Your task to perform on an android device: Open the calendar and show me this week's events Image 0: 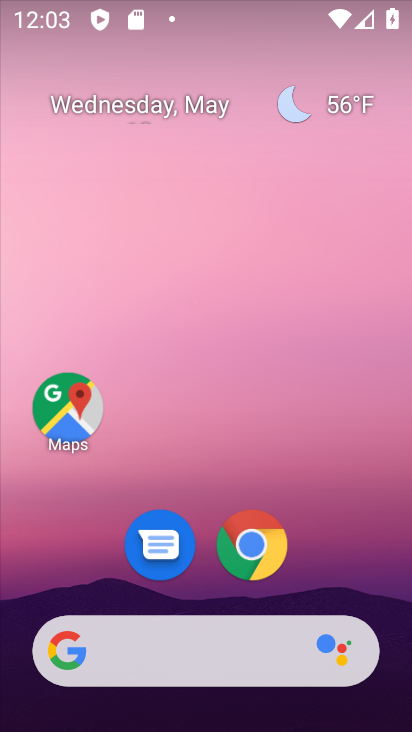
Step 0: drag from (353, 573) to (298, 124)
Your task to perform on an android device: Open the calendar and show me this week's events Image 1: 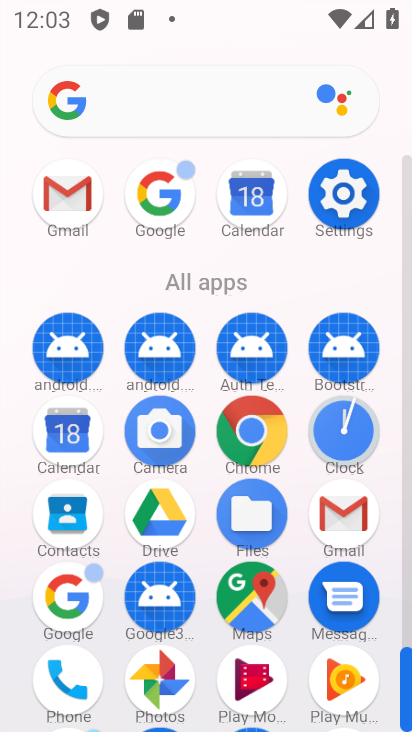
Step 1: click (77, 437)
Your task to perform on an android device: Open the calendar and show me this week's events Image 2: 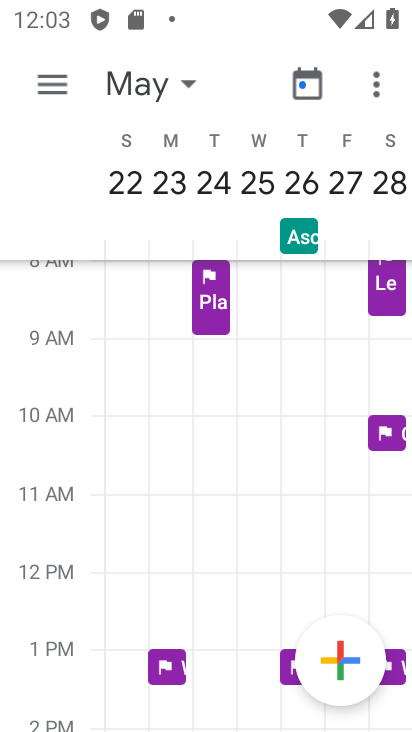
Step 2: click (312, 84)
Your task to perform on an android device: Open the calendar and show me this week's events Image 3: 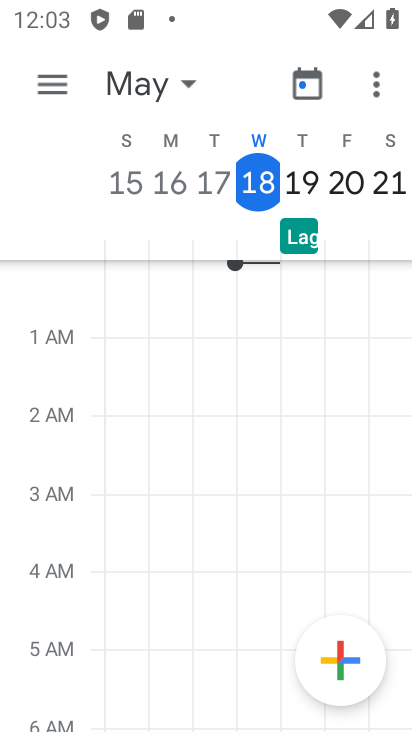
Step 3: click (187, 82)
Your task to perform on an android device: Open the calendar and show me this week's events Image 4: 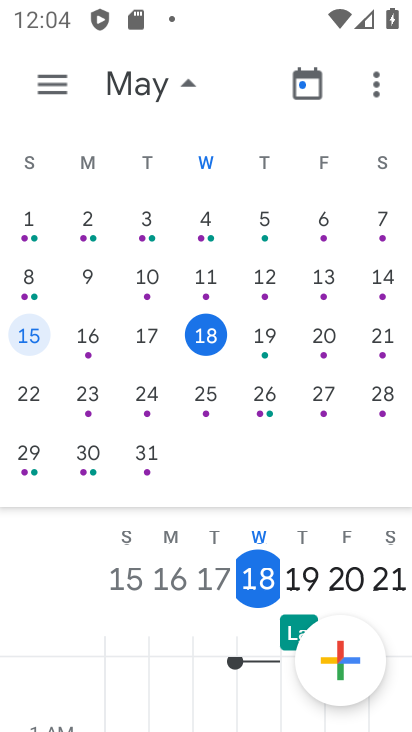
Step 4: click (67, 75)
Your task to perform on an android device: Open the calendar and show me this week's events Image 5: 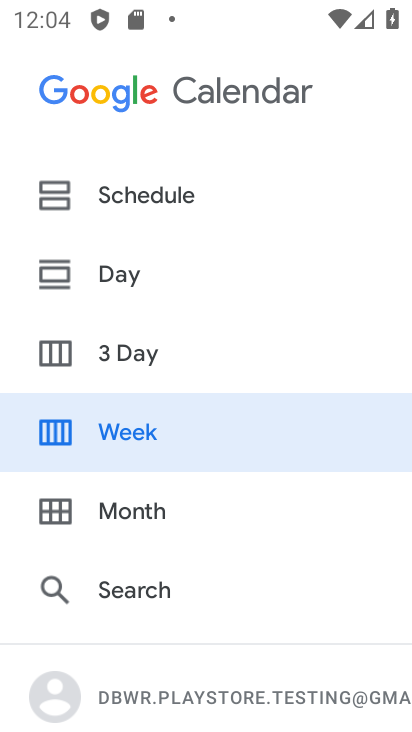
Step 5: click (147, 195)
Your task to perform on an android device: Open the calendar and show me this week's events Image 6: 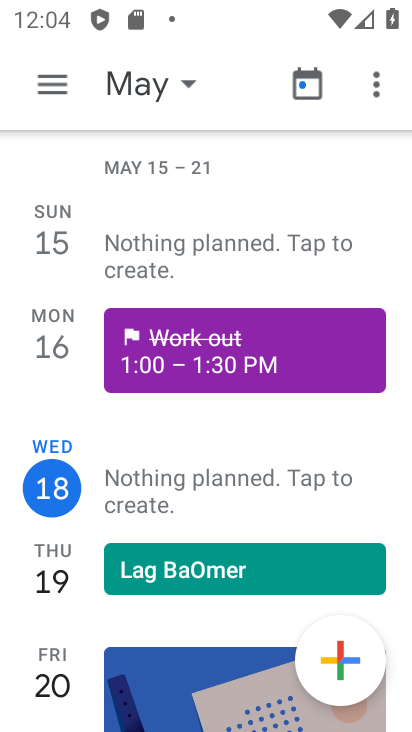
Step 6: task complete